Your task to perform on an android device: open app "Messenger Lite" Image 0: 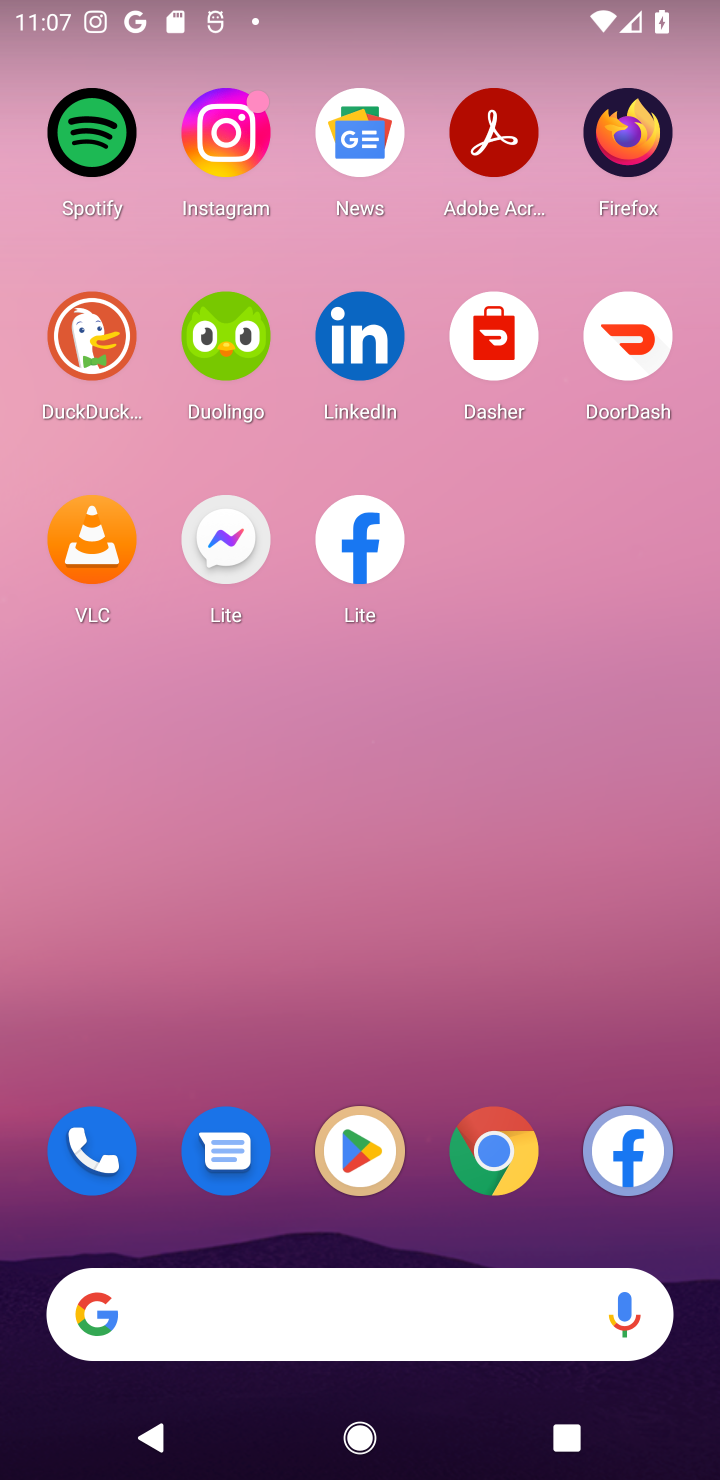
Step 0: click (219, 516)
Your task to perform on an android device: open app "Messenger Lite" Image 1: 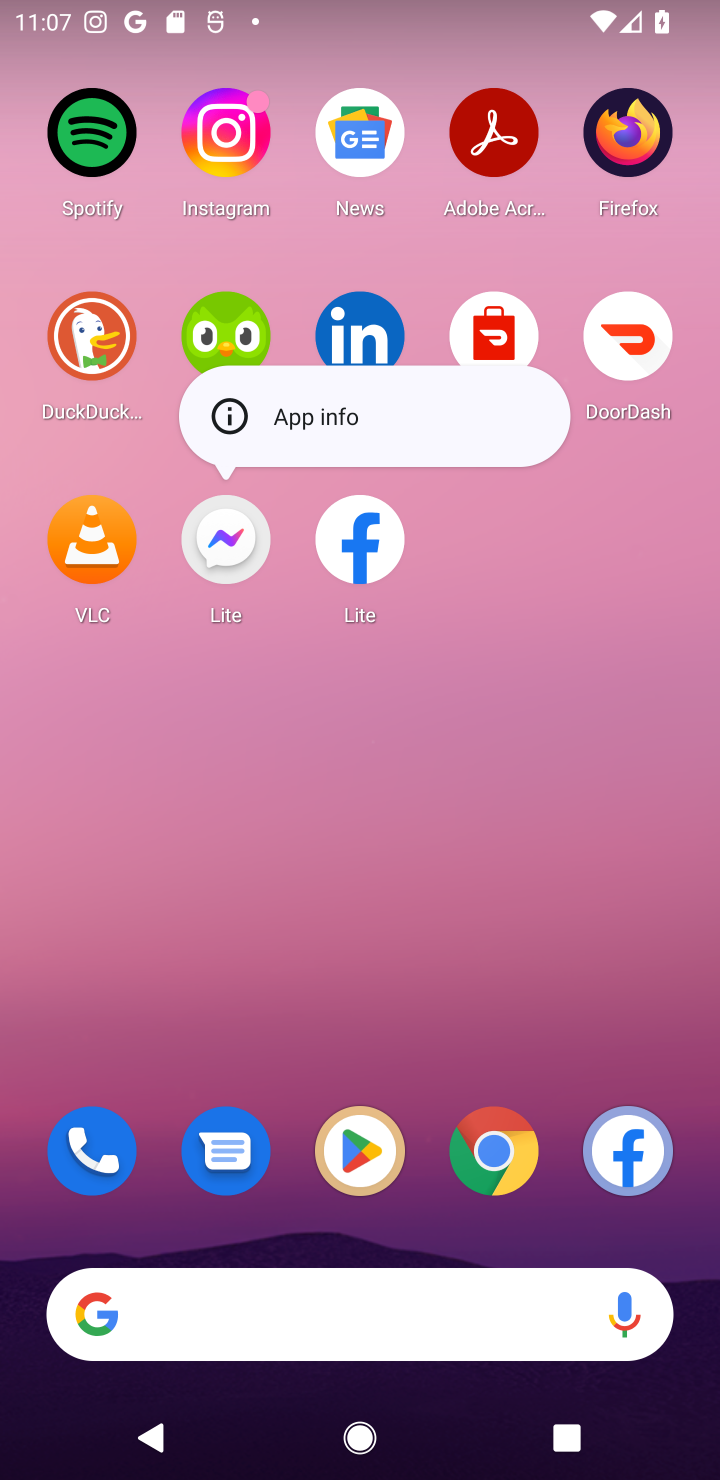
Step 1: click (216, 538)
Your task to perform on an android device: open app "Messenger Lite" Image 2: 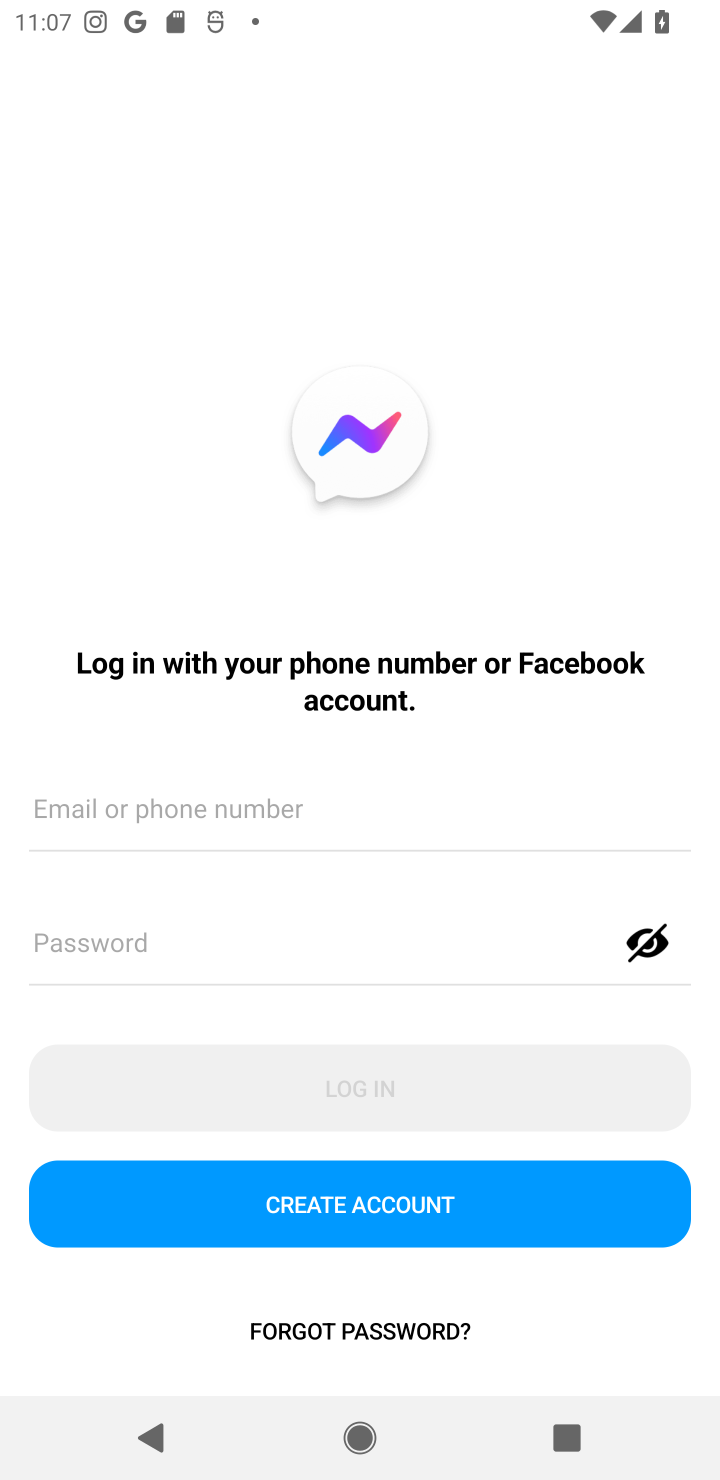
Step 2: task complete